Your task to perform on an android device: Open calendar and show me the third week of next month Image 0: 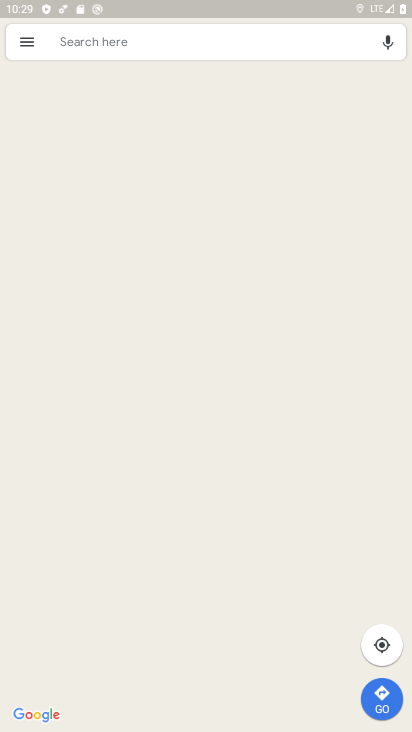
Step 0: press home button
Your task to perform on an android device: Open calendar and show me the third week of next month Image 1: 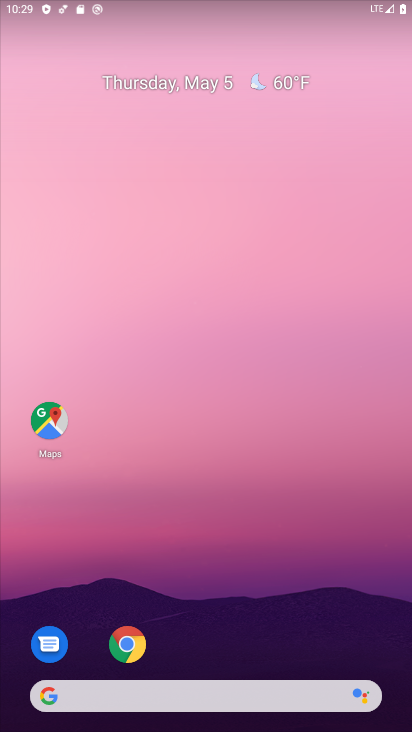
Step 1: drag from (310, 634) to (287, 226)
Your task to perform on an android device: Open calendar and show me the third week of next month Image 2: 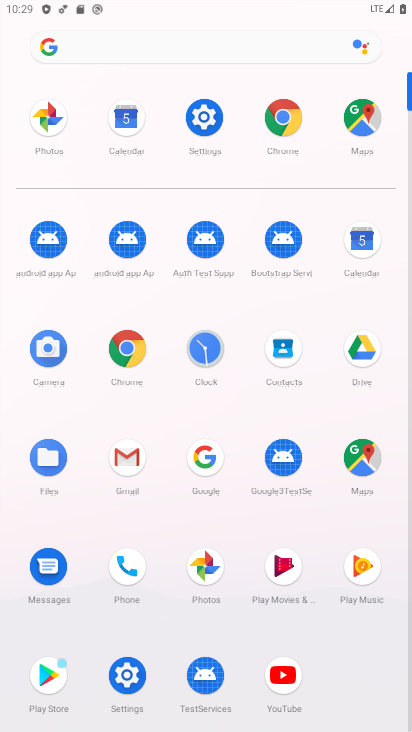
Step 2: click (363, 244)
Your task to perform on an android device: Open calendar and show me the third week of next month Image 3: 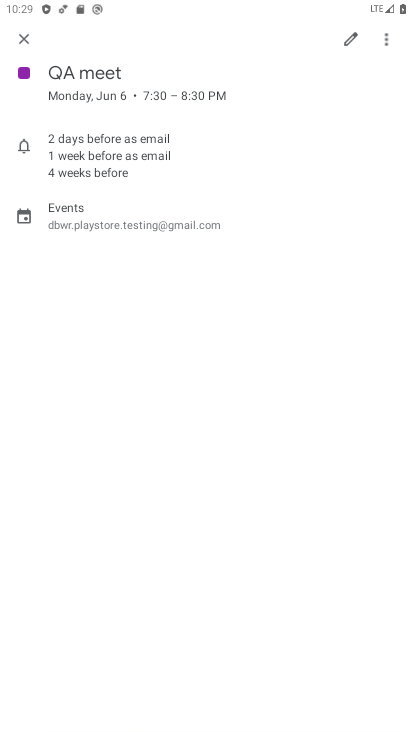
Step 3: click (29, 37)
Your task to perform on an android device: Open calendar and show me the third week of next month Image 4: 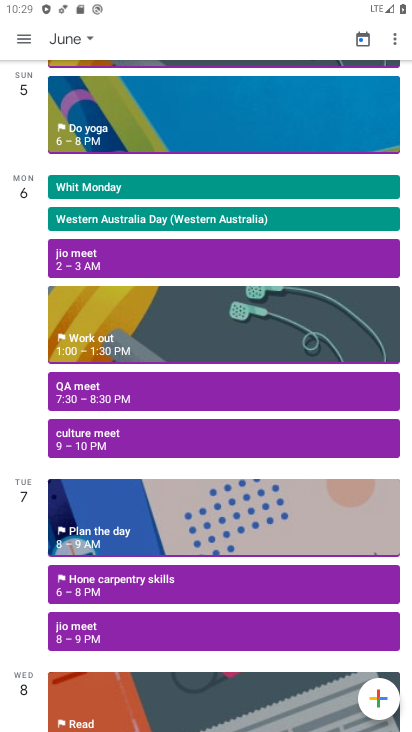
Step 4: click (57, 41)
Your task to perform on an android device: Open calendar and show me the third week of next month Image 5: 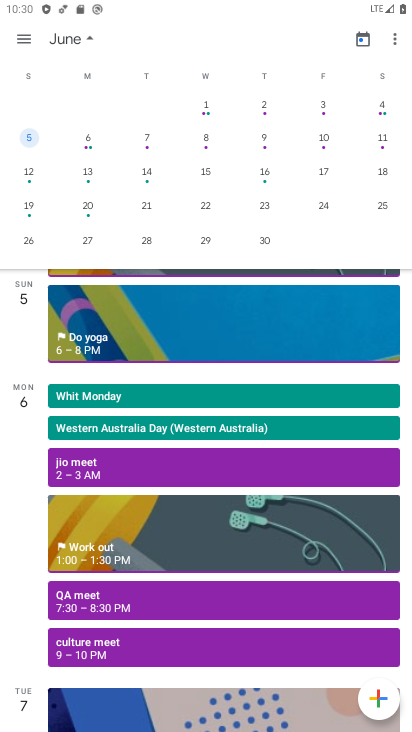
Step 5: click (62, 39)
Your task to perform on an android device: Open calendar and show me the third week of next month Image 6: 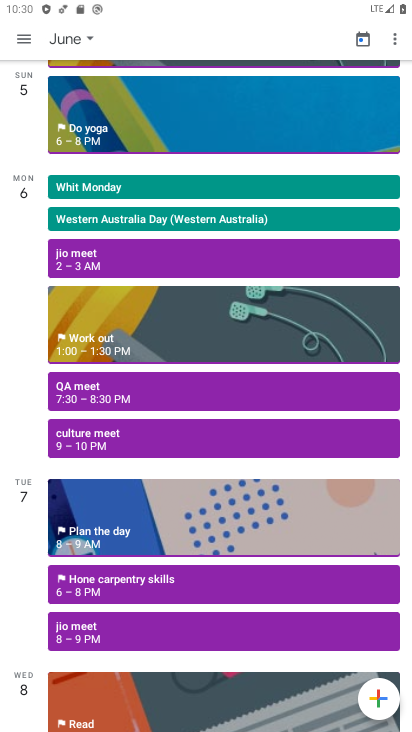
Step 6: click (62, 39)
Your task to perform on an android device: Open calendar and show me the third week of next month Image 7: 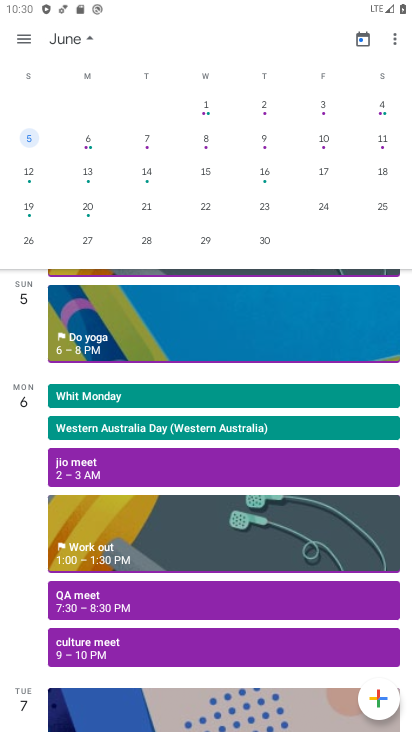
Step 7: click (26, 175)
Your task to perform on an android device: Open calendar and show me the third week of next month Image 8: 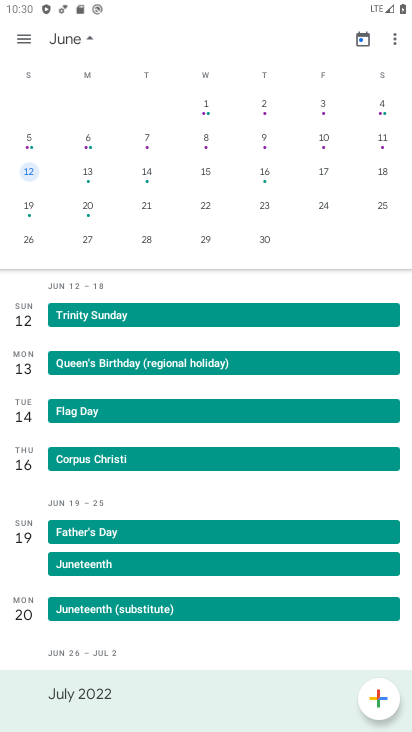
Step 8: task complete